Your task to perform on an android device: What's on my calendar tomorrow? Image 0: 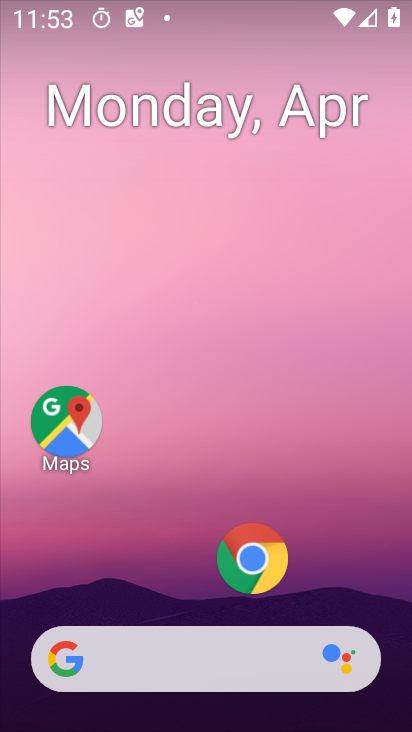
Step 0: drag from (187, 616) to (187, 215)
Your task to perform on an android device: What's on my calendar tomorrow? Image 1: 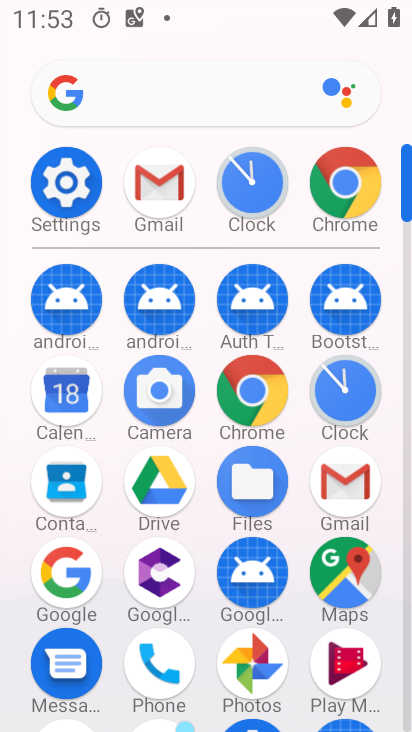
Step 1: click (54, 410)
Your task to perform on an android device: What's on my calendar tomorrow? Image 2: 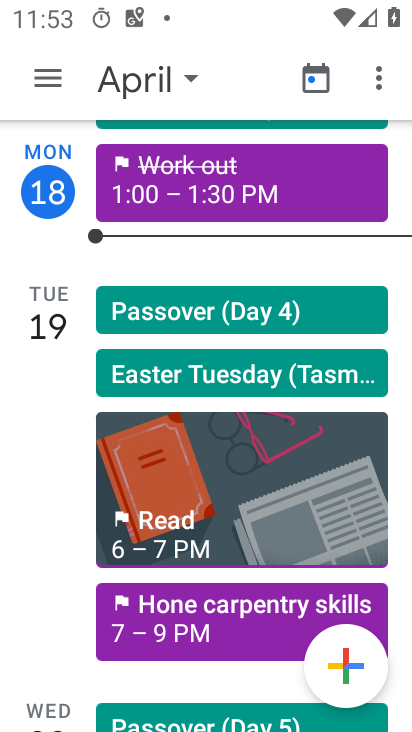
Step 2: click (154, 92)
Your task to perform on an android device: What's on my calendar tomorrow? Image 3: 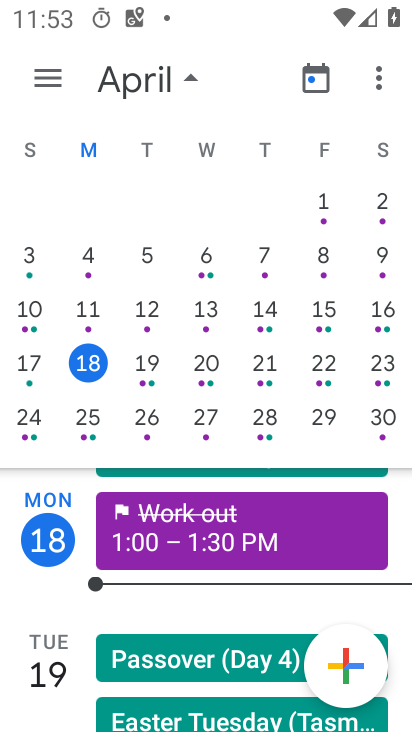
Step 3: click (140, 369)
Your task to perform on an android device: What's on my calendar tomorrow? Image 4: 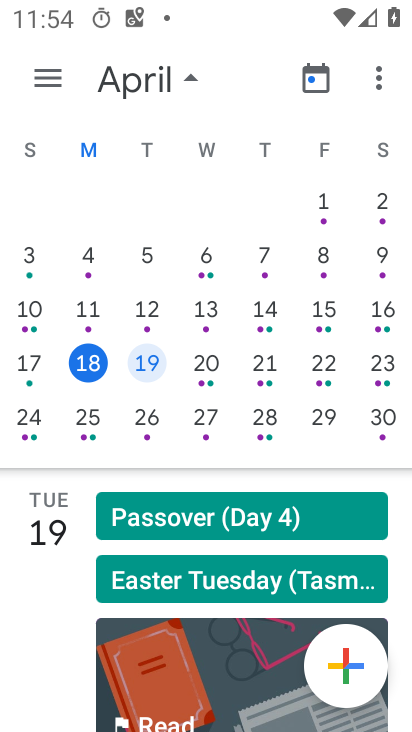
Step 4: task complete